Your task to perform on an android device: install app "Duolingo: language lessons" Image 0: 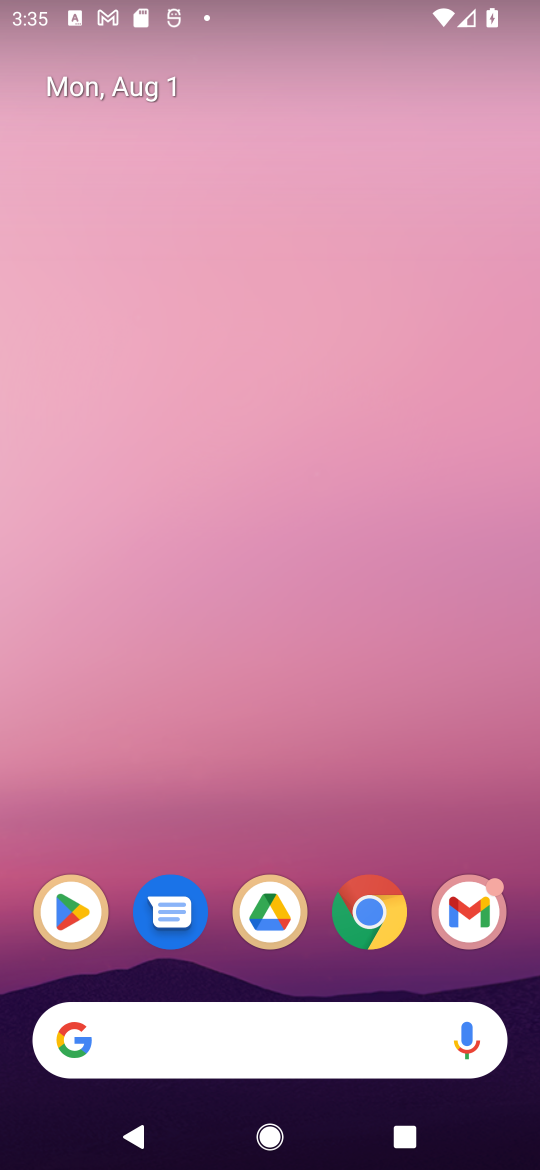
Step 0: click (66, 919)
Your task to perform on an android device: install app "Duolingo: language lessons" Image 1: 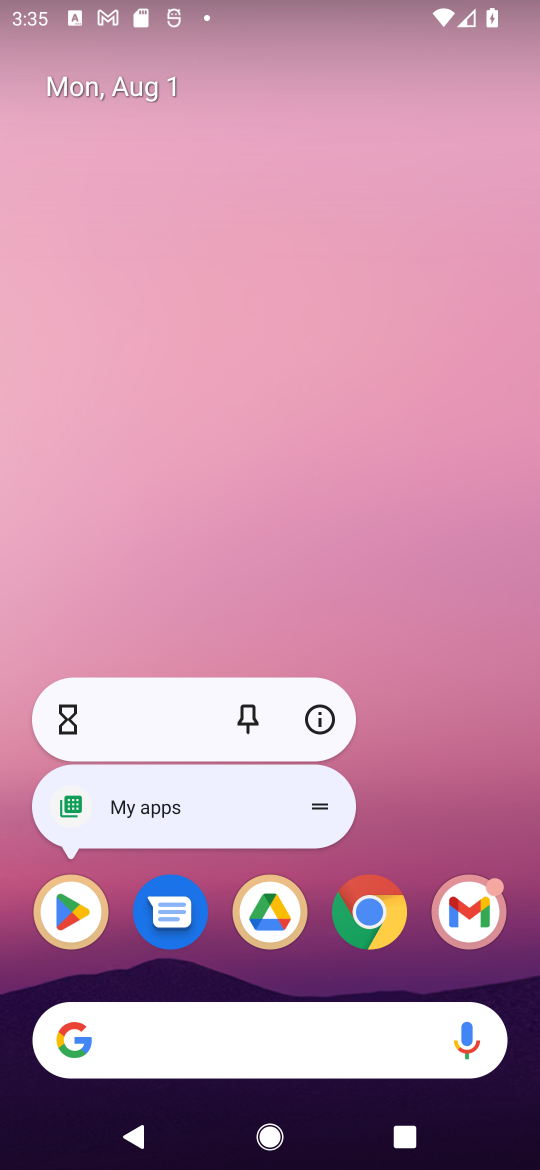
Step 1: click (66, 919)
Your task to perform on an android device: install app "Duolingo: language lessons" Image 2: 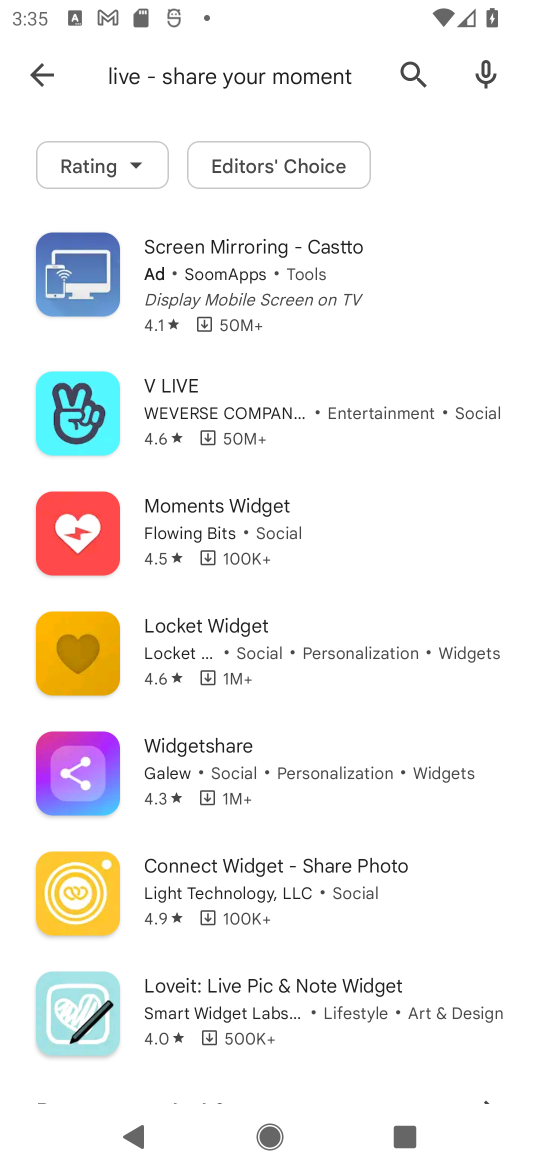
Step 2: click (412, 72)
Your task to perform on an android device: install app "Duolingo: language lessons" Image 3: 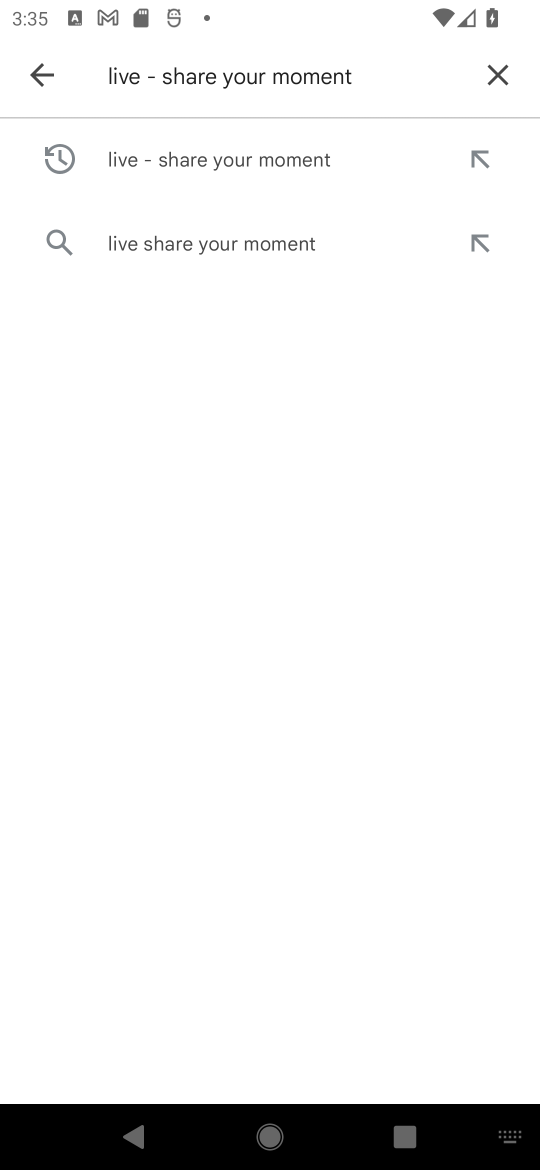
Step 3: click (502, 64)
Your task to perform on an android device: install app "Duolingo: language lessons" Image 4: 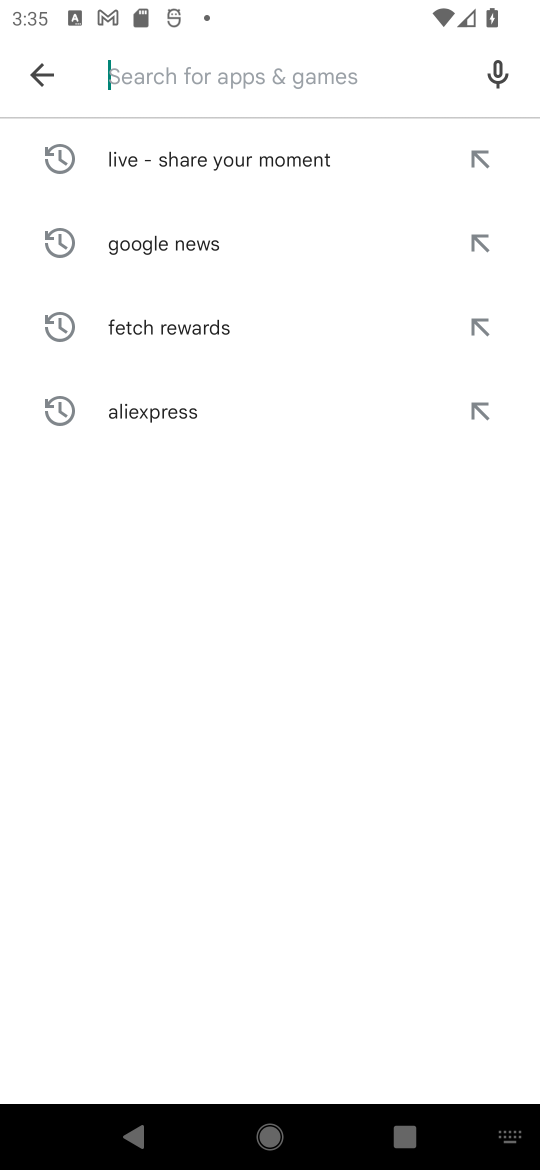
Step 4: click (180, 91)
Your task to perform on an android device: install app "Duolingo: language lessons" Image 5: 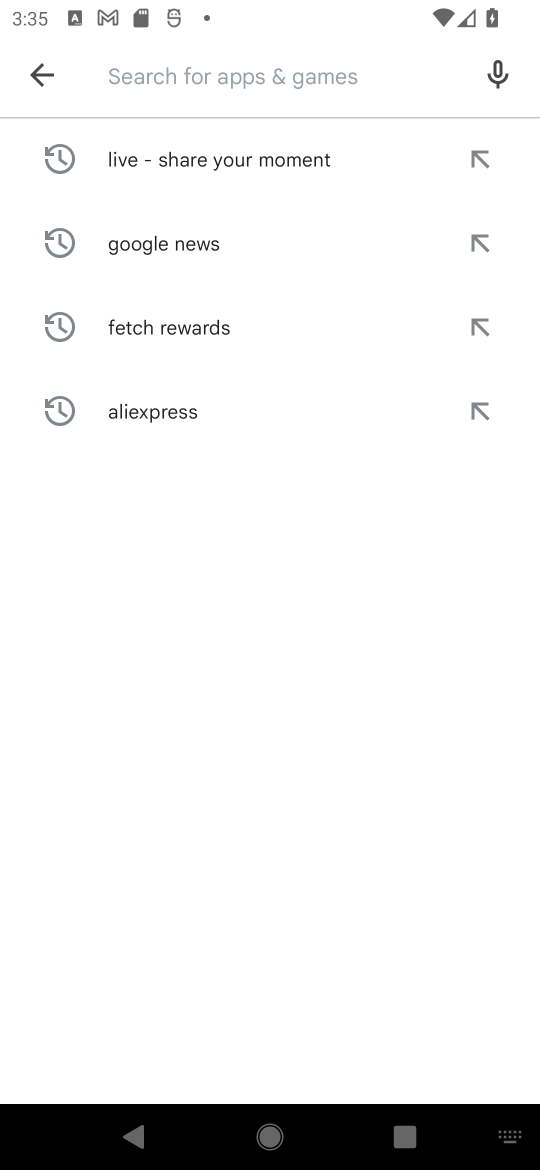
Step 5: type "Duolingo: language lessons"
Your task to perform on an android device: install app "Duolingo: language lessons" Image 6: 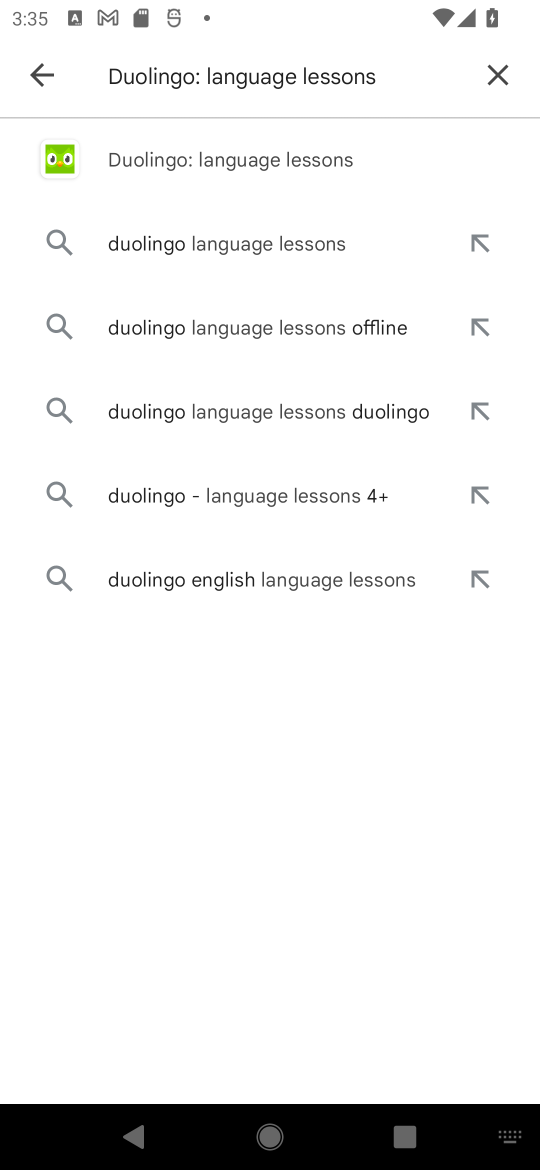
Step 6: click (318, 159)
Your task to perform on an android device: install app "Duolingo: language lessons" Image 7: 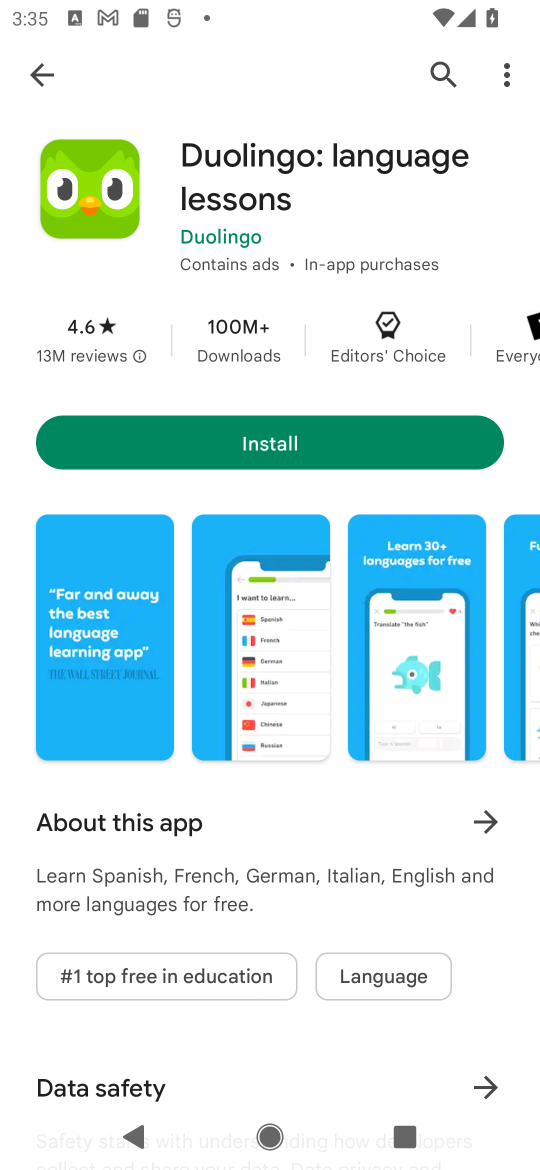
Step 7: click (208, 438)
Your task to perform on an android device: install app "Duolingo: language lessons" Image 8: 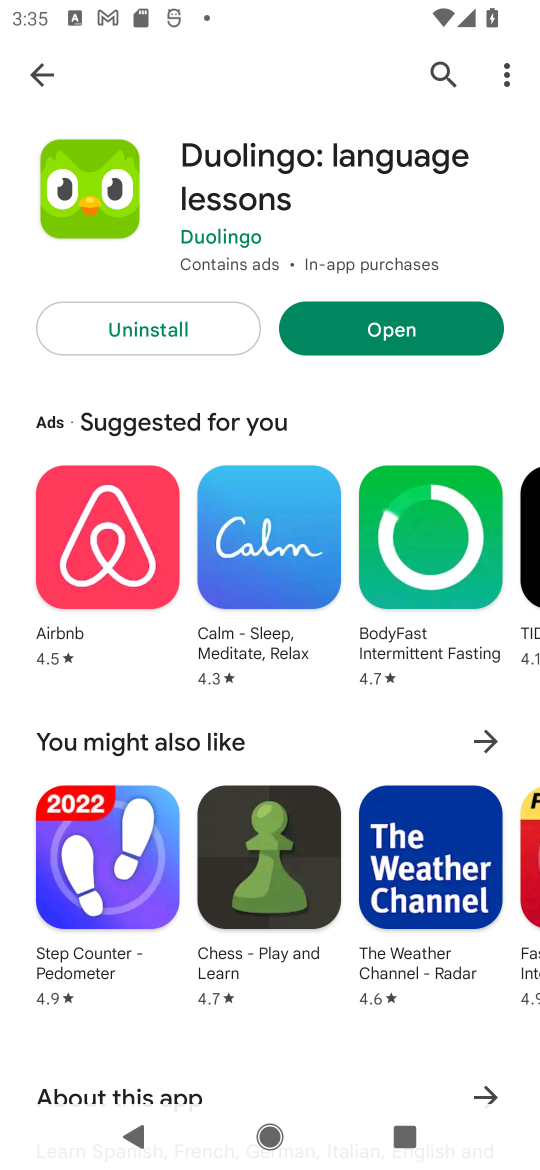
Step 8: task complete